Your task to perform on an android device: Open Google Chrome Image 0: 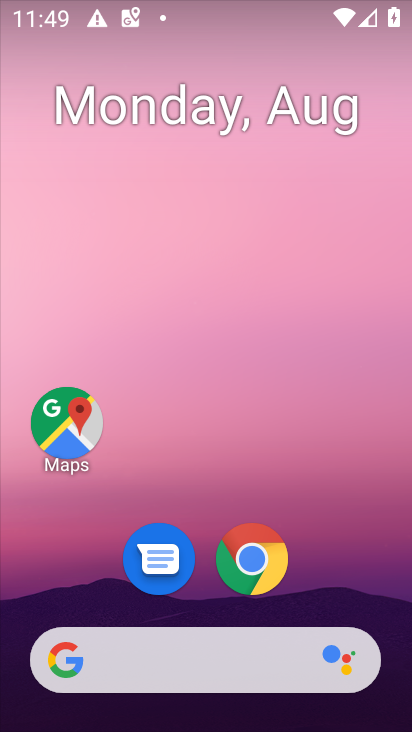
Step 0: click (256, 578)
Your task to perform on an android device: Open Google Chrome Image 1: 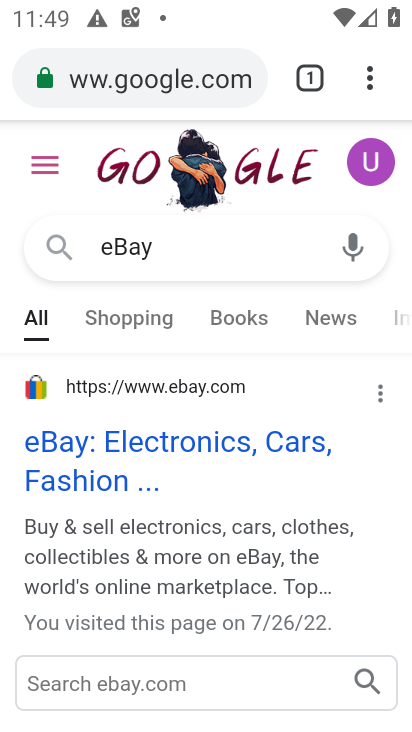
Step 1: task complete